Your task to perform on an android device: refresh tabs in the chrome app Image 0: 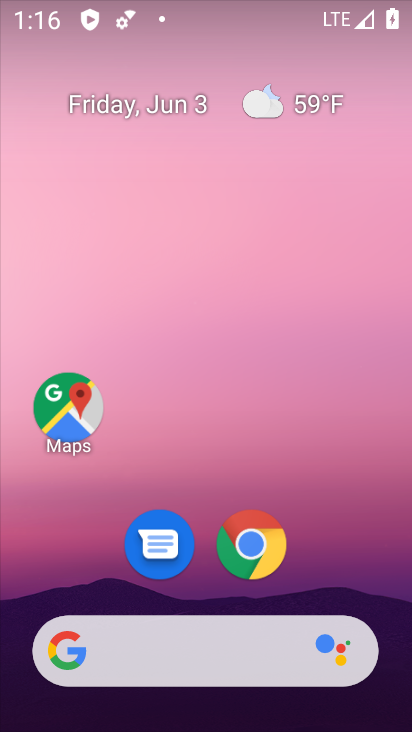
Step 0: drag from (190, 601) to (79, 74)
Your task to perform on an android device: refresh tabs in the chrome app Image 1: 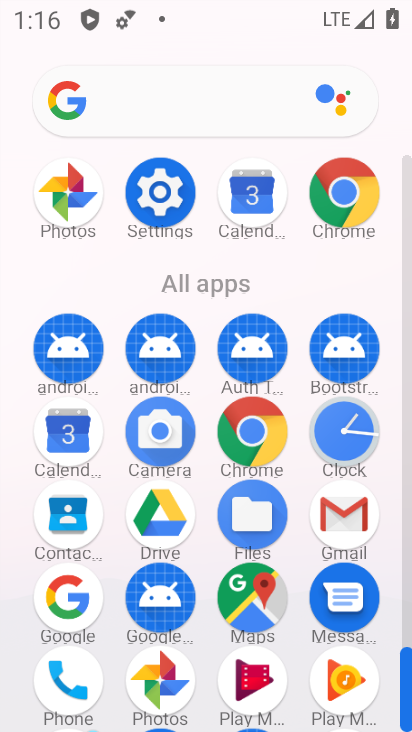
Step 1: click (349, 176)
Your task to perform on an android device: refresh tabs in the chrome app Image 2: 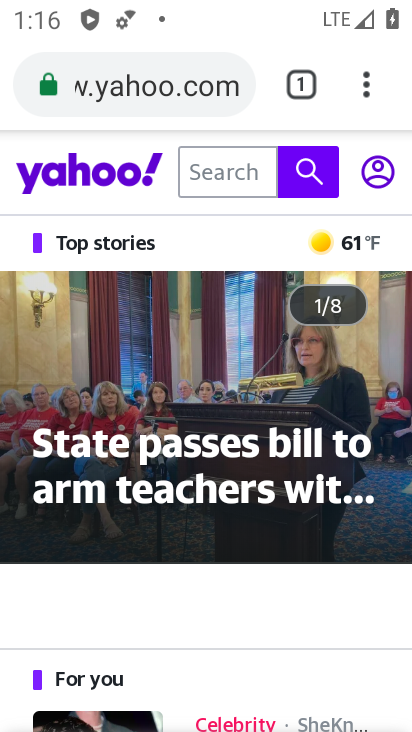
Step 2: click (357, 88)
Your task to perform on an android device: refresh tabs in the chrome app Image 3: 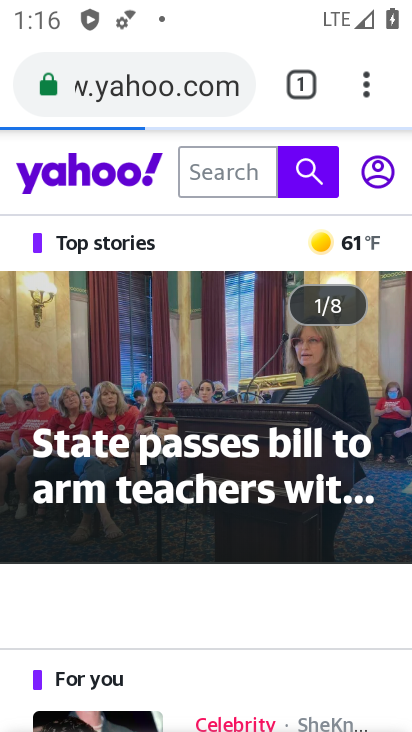
Step 3: click (360, 86)
Your task to perform on an android device: refresh tabs in the chrome app Image 4: 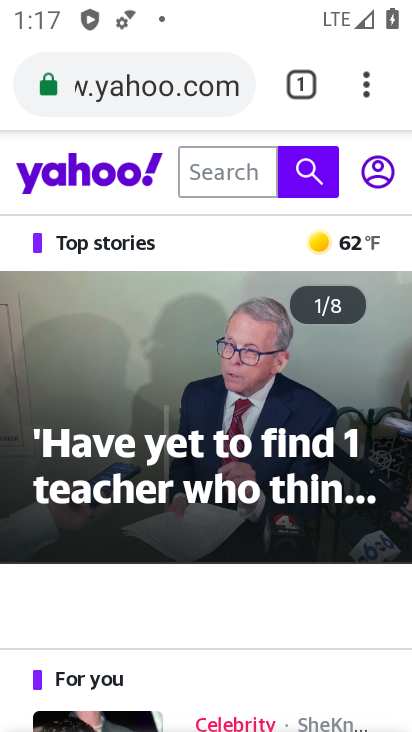
Step 4: click (376, 76)
Your task to perform on an android device: refresh tabs in the chrome app Image 5: 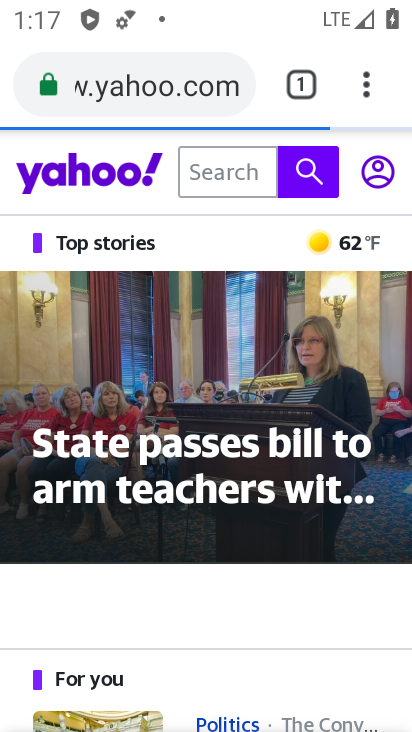
Step 5: task complete